Your task to perform on an android device: add a label to a message in the gmail app Image 0: 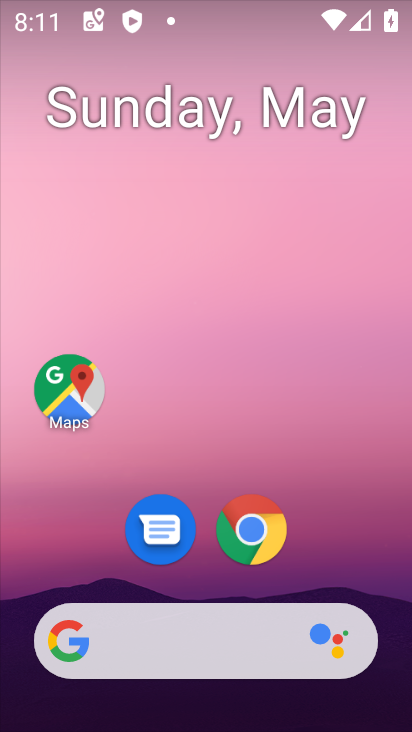
Step 0: drag from (372, 588) to (315, 16)
Your task to perform on an android device: add a label to a message in the gmail app Image 1: 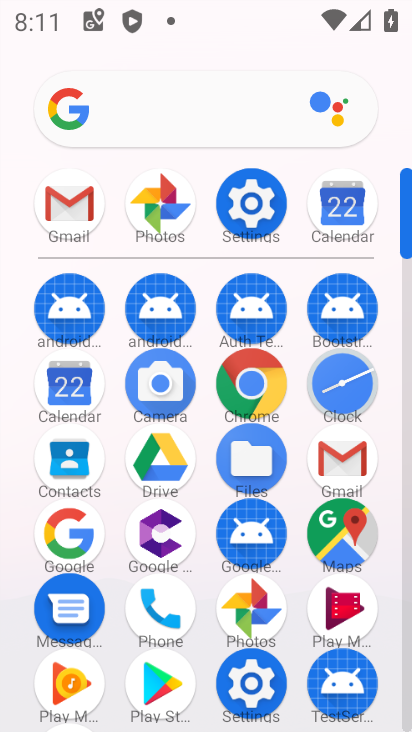
Step 1: click (60, 214)
Your task to perform on an android device: add a label to a message in the gmail app Image 2: 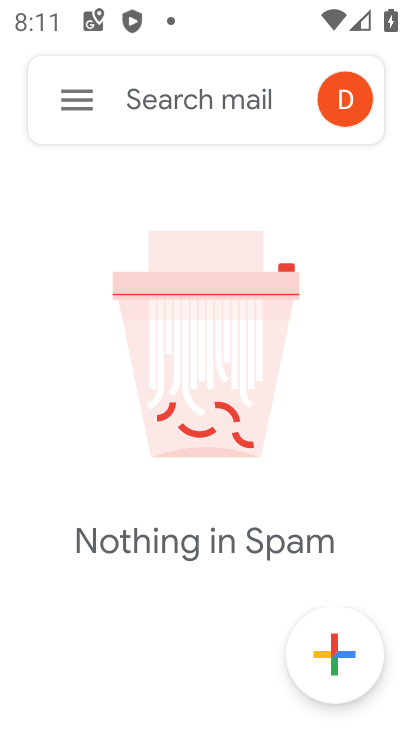
Step 2: click (69, 110)
Your task to perform on an android device: add a label to a message in the gmail app Image 3: 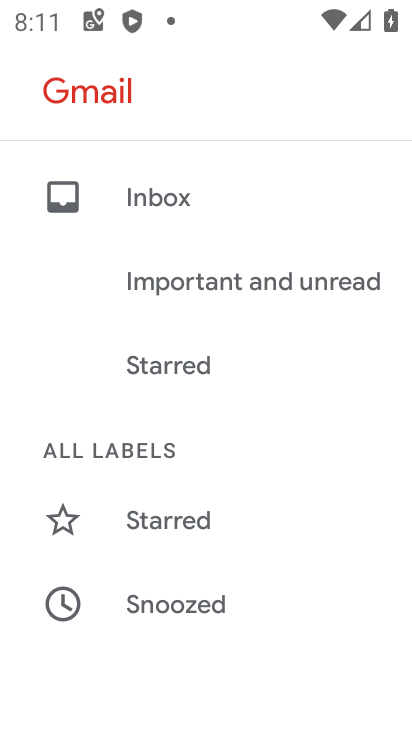
Step 3: drag from (291, 525) to (278, 98)
Your task to perform on an android device: add a label to a message in the gmail app Image 4: 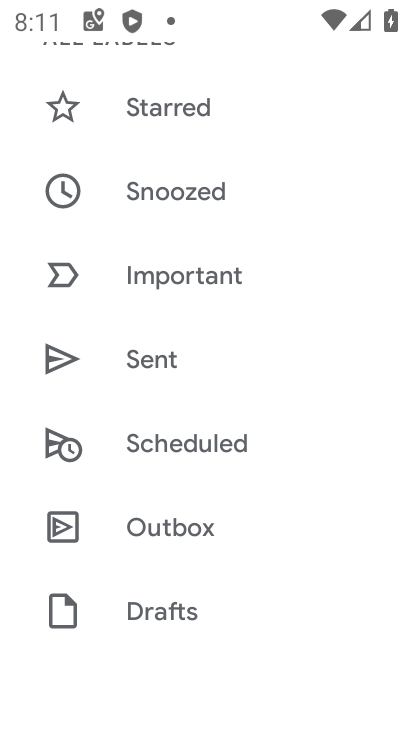
Step 4: drag from (249, 220) to (239, 74)
Your task to perform on an android device: add a label to a message in the gmail app Image 5: 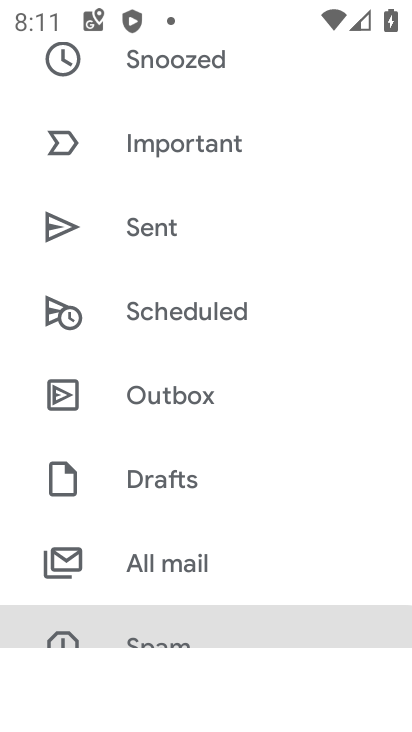
Step 5: click (149, 568)
Your task to perform on an android device: add a label to a message in the gmail app Image 6: 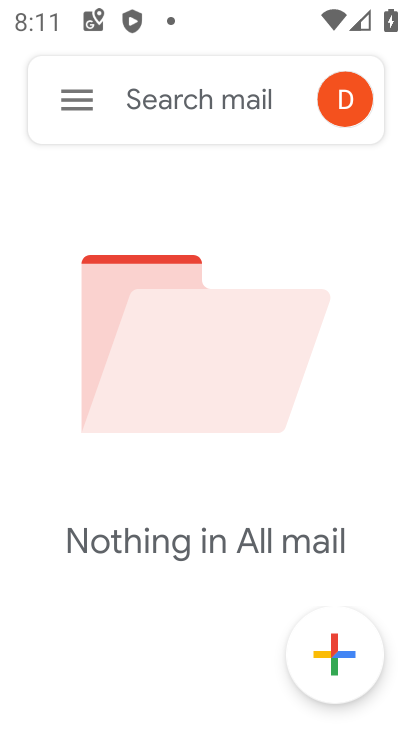
Step 6: task complete